Your task to perform on an android device: Go to Maps Image 0: 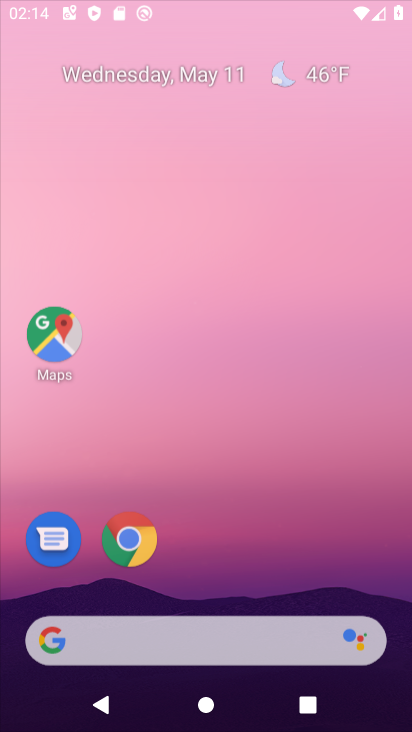
Step 0: click (246, 141)
Your task to perform on an android device: Go to Maps Image 1: 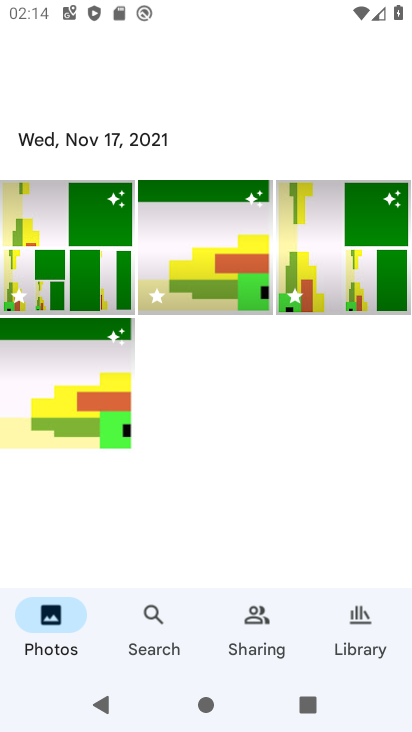
Step 1: drag from (206, 633) to (288, 101)
Your task to perform on an android device: Go to Maps Image 2: 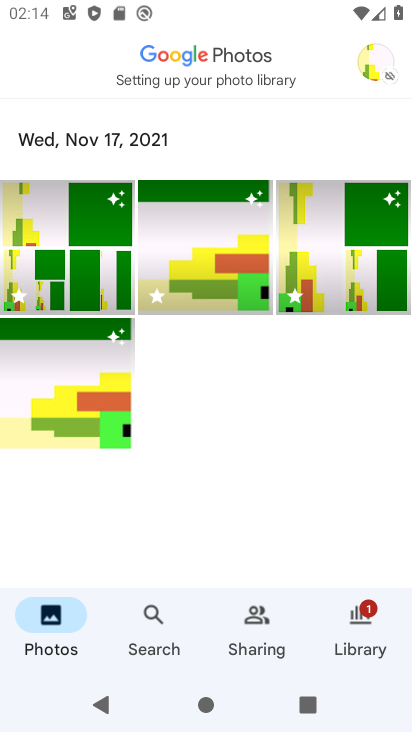
Step 2: press home button
Your task to perform on an android device: Go to Maps Image 3: 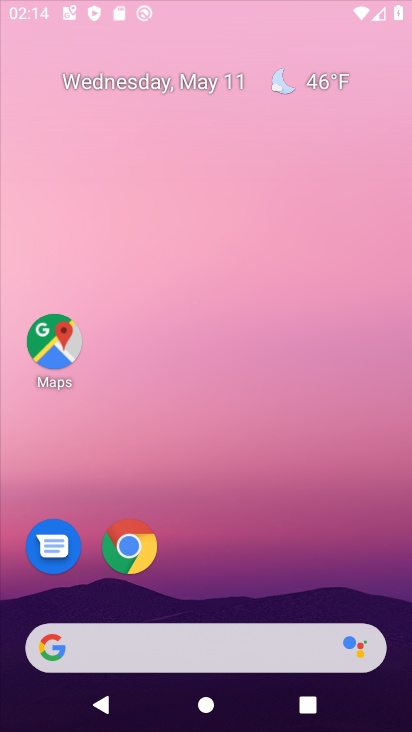
Step 3: drag from (227, 566) to (318, 4)
Your task to perform on an android device: Go to Maps Image 4: 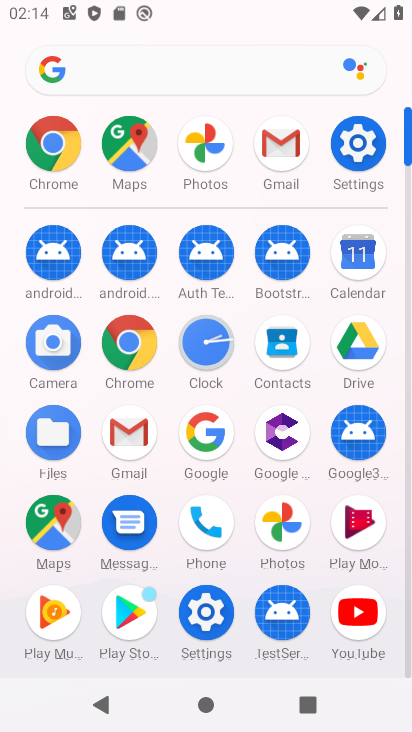
Step 4: click (49, 516)
Your task to perform on an android device: Go to Maps Image 5: 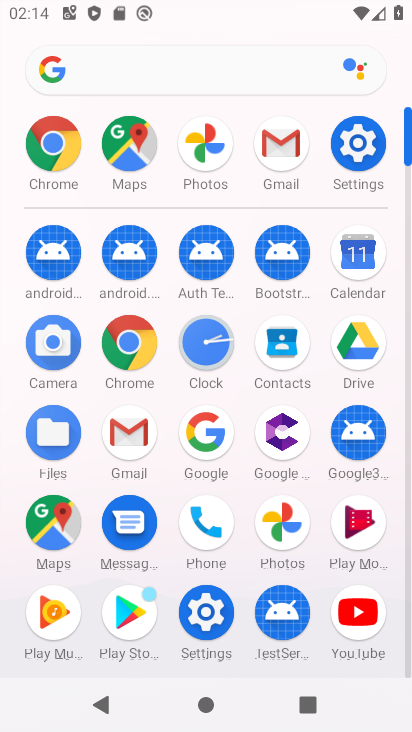
Step 5: click (49, 516)
Your task to perform on an android device: Go to Maps Image 6: 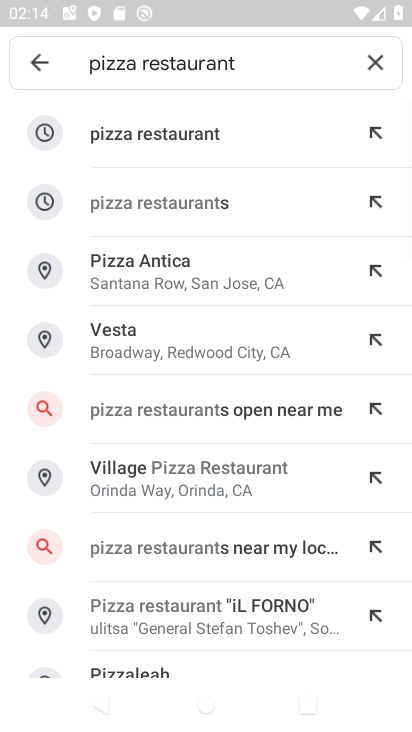
Step 6: drag from (211, 645) to (279, 314)
Your task to perform on an android device: Go to Maps Image 7: 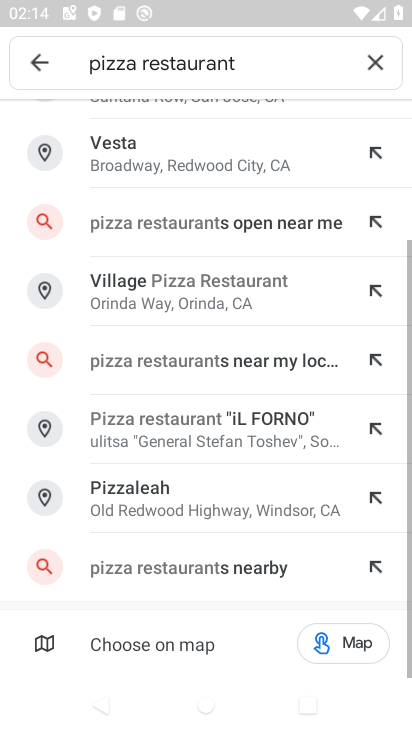
Step 7: click (393, 61)
Your task to perform on an android device: Go to Maps Image 8: 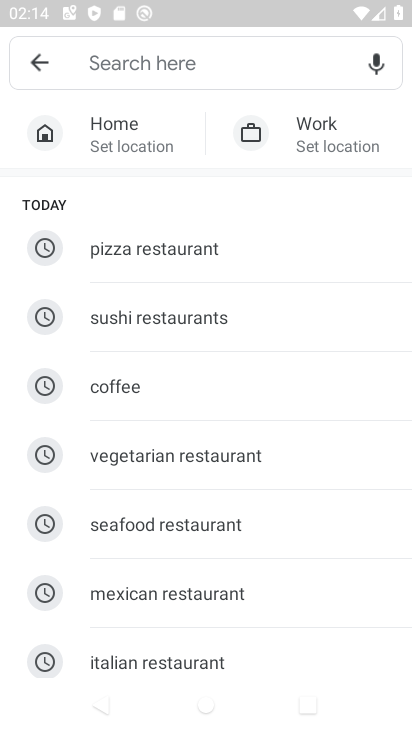
Step 8: click (25, 77)
Your task to perform on an android device: Go to Maps Image 9: 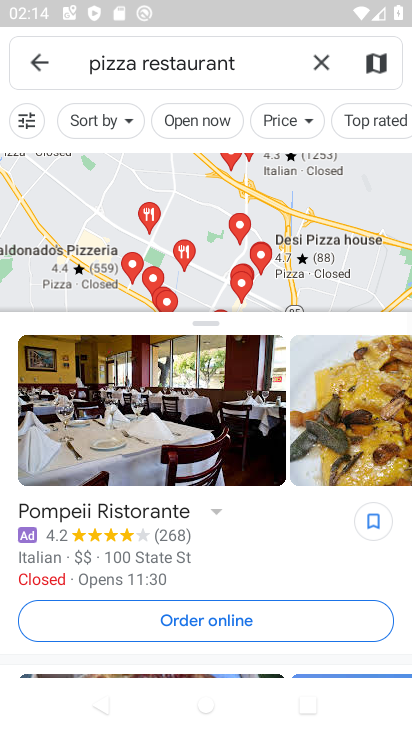
Step 9: task complete